Your task to perform on an android device: Open the downloads Image 0: 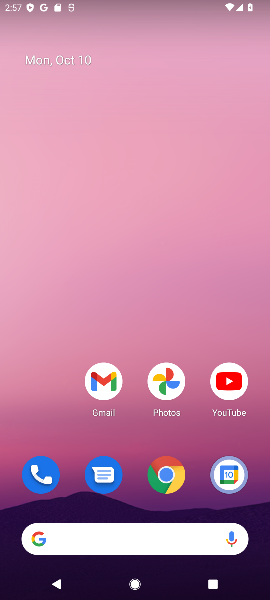
Step 0: drag from (119, 517) to (142, 251)
Your task to perform on an android device: Open the downloads Image 1: 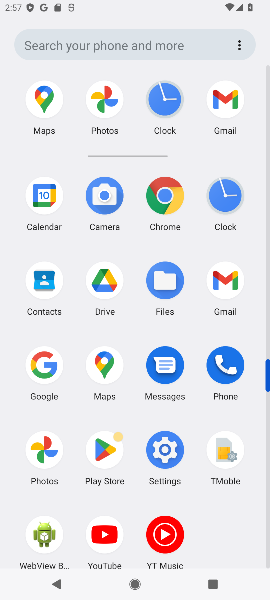
Step 1: click (172, 284)
Your task to perform on an android device: Open the downloads Image 2: 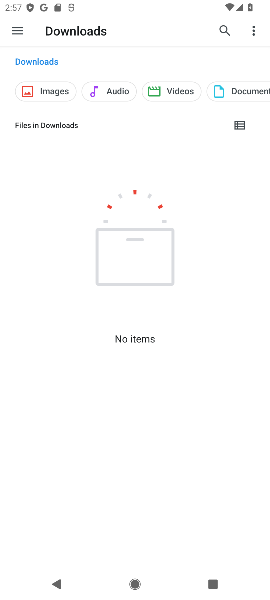
Step 2: drag from (234, 92) to (65, 100)
Your task to perform on an android device: Open the downloads Image 3: 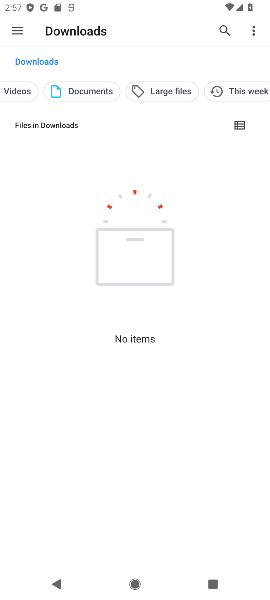
Step 3: drag from (182, 93) to (38, 107)
Your task to perform on an android device: Open the downloads Image 4: 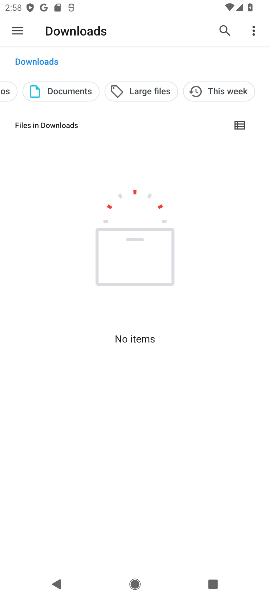
Step 4: drag from (40, 94) to (269, 112)
Your task to perform on an android device: Open the downloads Image 5: 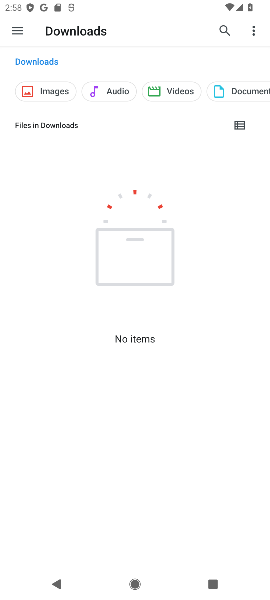
Step 5: click (20, 30)
Your task to perform on an android device: Open the downloads Image 6: 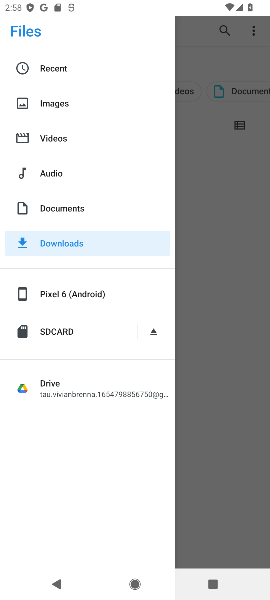
Step 6: task complete